Your task to perform on an android device: turn on showing notifications on the lock screen Image 0: 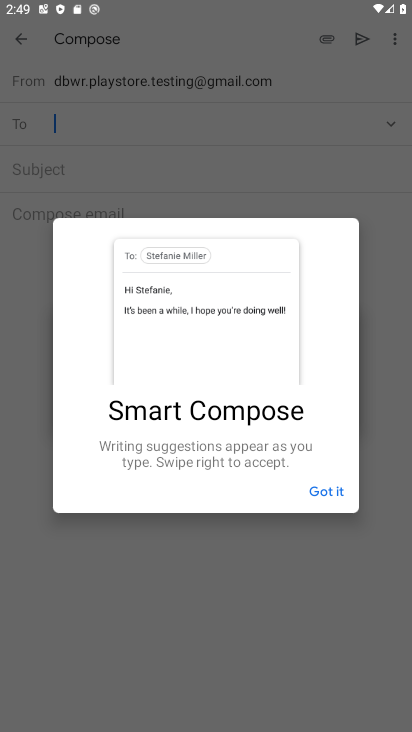
Step 0: press home button
Your task to perform on an android device: turn on showing notifications on the lock screen Image 1: 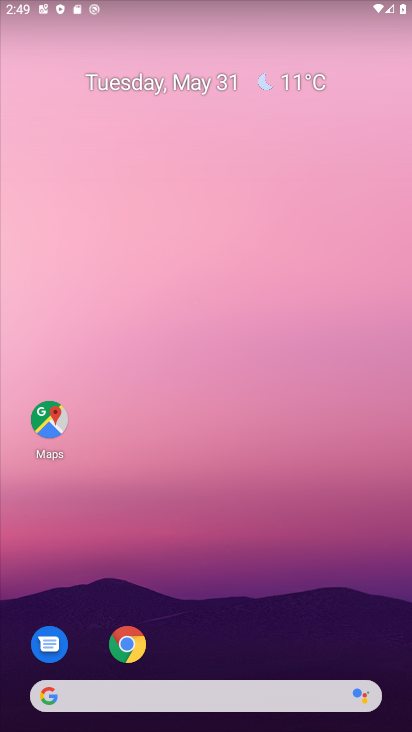
Step 1: drag from (219, 562) to (298, 138)
Your task to perform on an android device: turn on showing notifications on the lock screen Image 2: 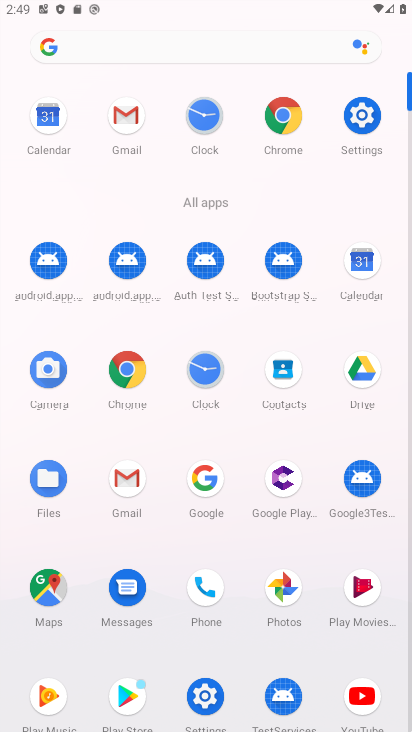
Step 2: click (352, 113)
Your task to perform on an android device: turn on showing notifications on the lock screen Image 3: 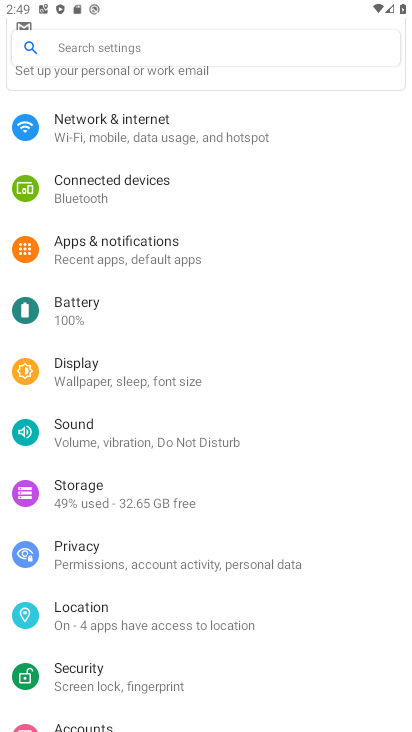
Step 3: click (95, 254)
Your task to perform on an android device: turn on showing notifications on the lock screen Image 4: 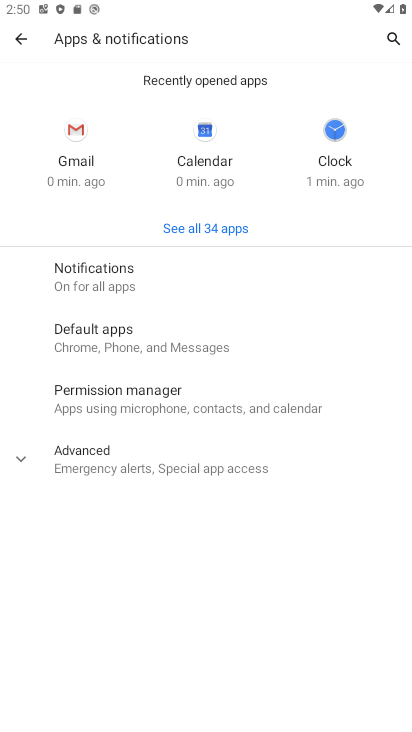
Step 4: click (87, 281)
Your task to perform on an android device: turn on showing notifications on the lock screen Image 5: 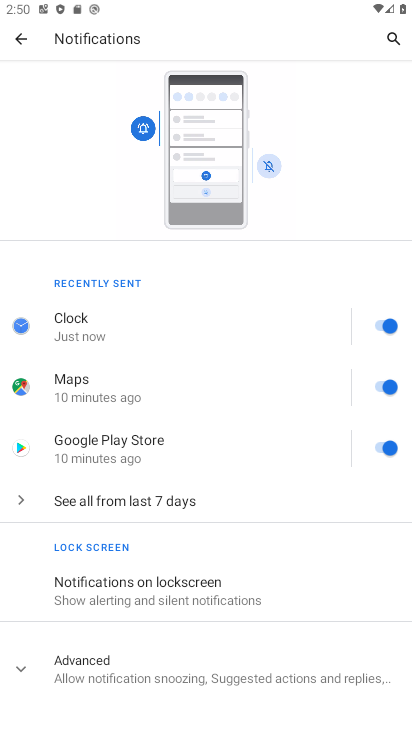
Step 5: click (87, 281)
Your task to perform on an android device: turn on showing notifications on the lock screen Image 6: 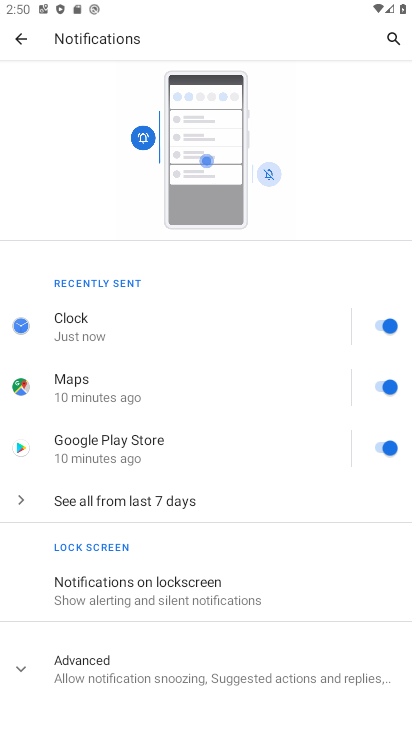
Step 6: click (202, 587)
Your task to perform on an android device: turn on showing notifications on the lock screen Image 7: 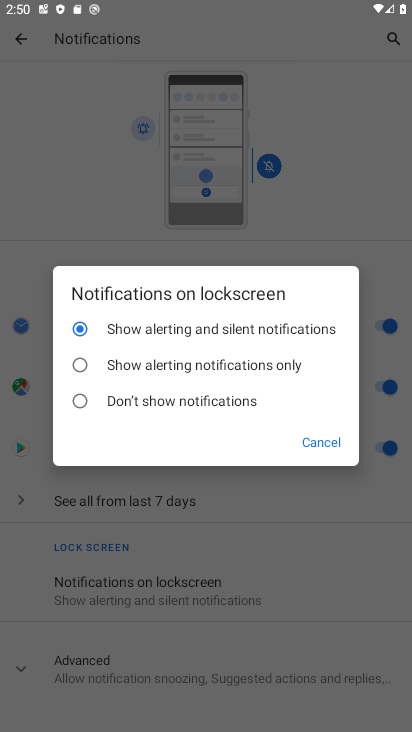
Step 7: click (75, 367)
Your task to perform on an android device: turn on showing notifications on the lock screen Image 8: 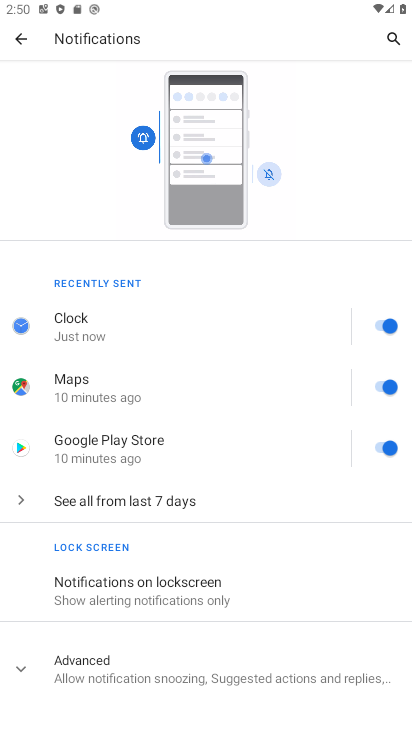
Step 8: task complete